Your task to perform on an android device: Show me productivity apps on the Play Store Image 0: 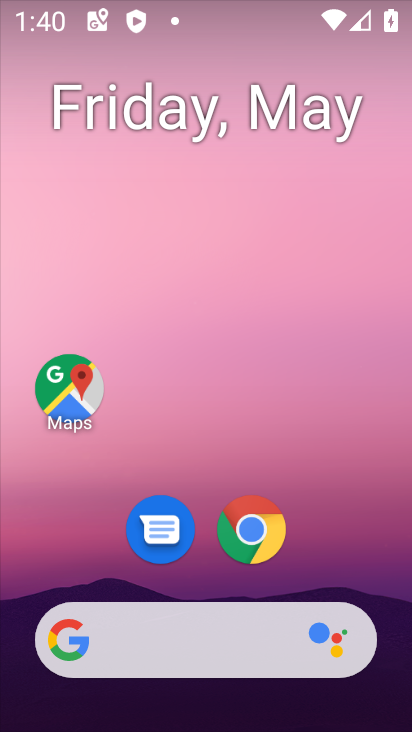
Step 0: drag from (308, 573) to (292, 107)
Your task to perform on an android device: Show me productivity apps on the Play Store Image 1: 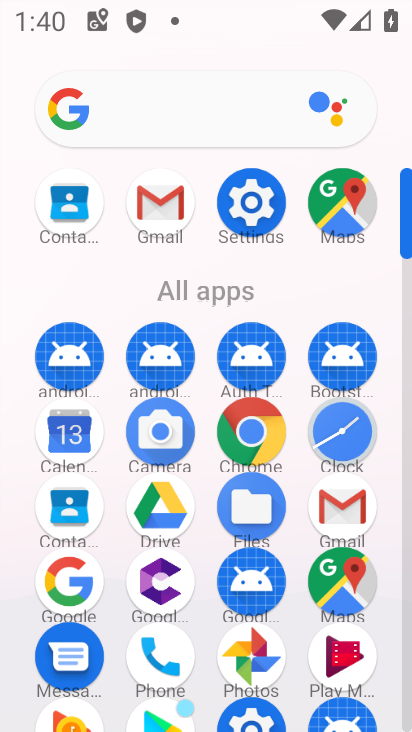
Step 1: drag from (204, 631) to (225, 339)
Your task to perform on an android device: Show me productivity apps on the Play Store Image 2: 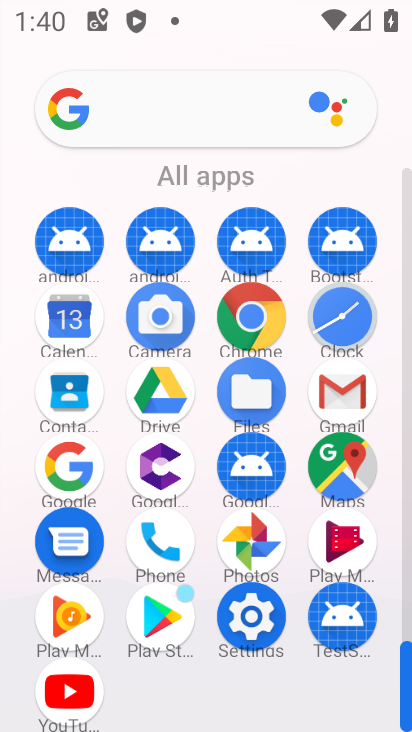
Step 2: click (153, 633)
Your task to perform on an android device: Show me productivity apps on the Play Store Image 3: 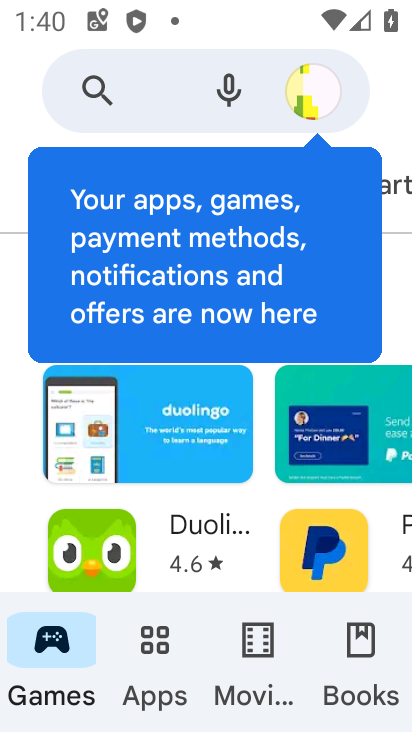
Step 3: click (137, 678)
Your task to perform on an android device: Show me productivity apps on the Play Store Image 4: 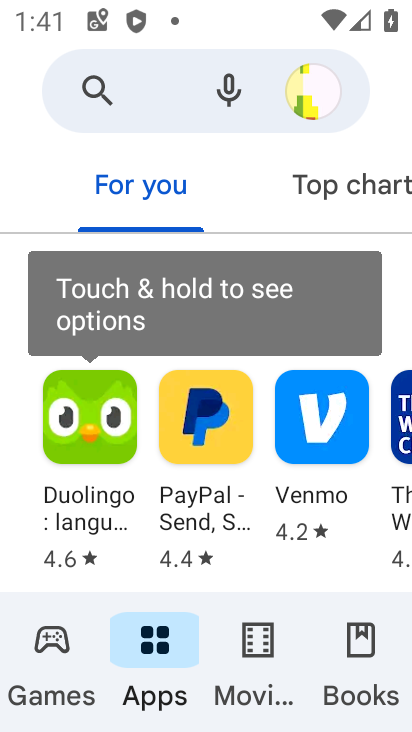
Step 4: click (336, 185)
Your task to perform on an android device: Show me productivity apps on the Play Store Image 5: 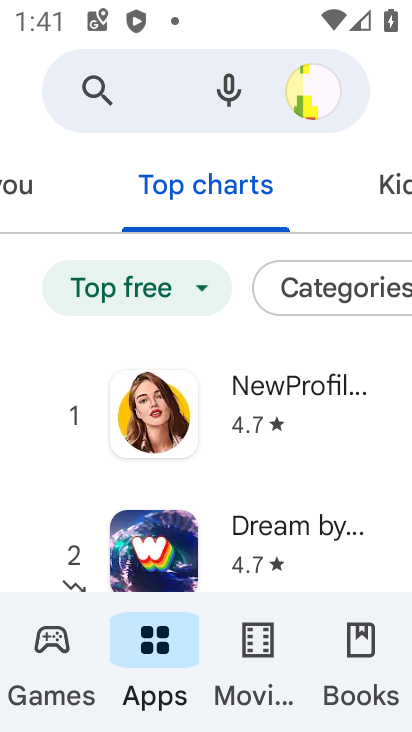
Step 5: drag from (358, 192) to (124, 196)
Your task to perform on an android device: Show me productivity apps on the Play Store Image 6: 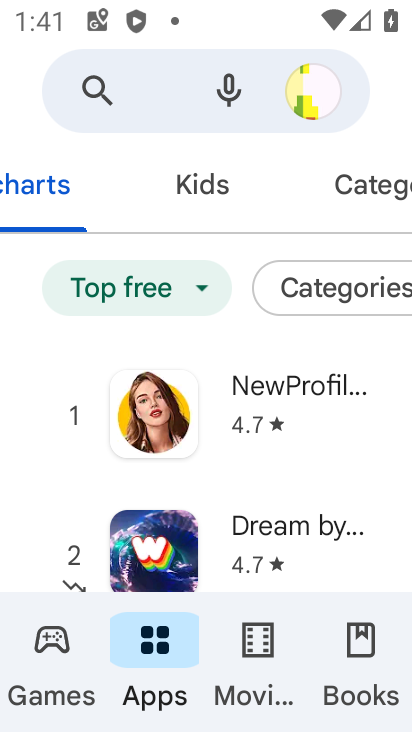
Step 6: click (368, 184)
Your task to perform on an android device: Show me productivity apps on the Play Store Image 7: 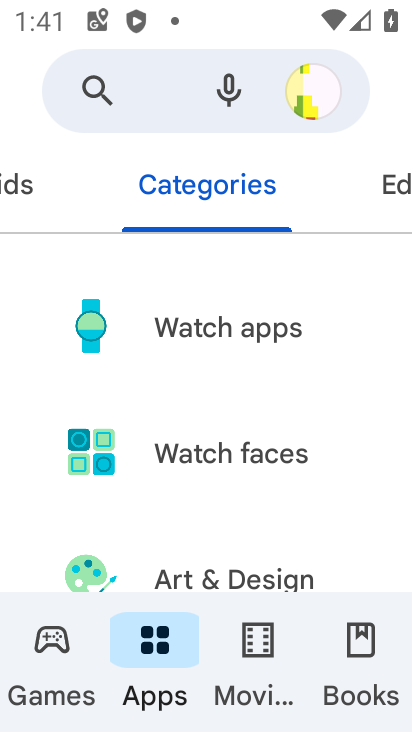
Step 7: drag from (232, 509) to (263, 81)
Your task to perform on an android device: Show me productivity apps on the Play Store Image 8: 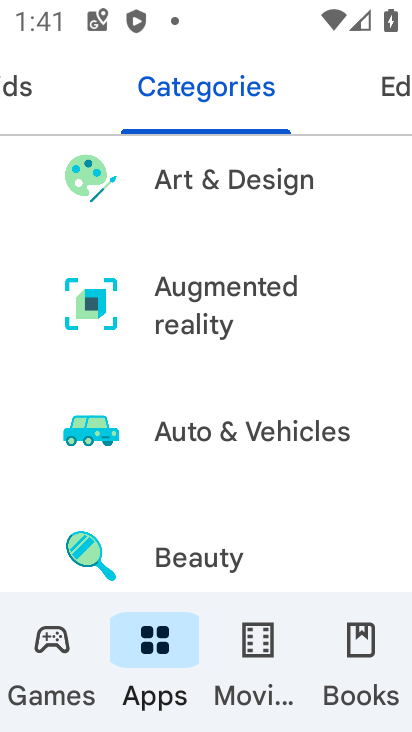
Step 8: drag from (248, 462) to (297, 75)
Your task to perform on an android device: Show me productivity apps on the Play Store Image 9: 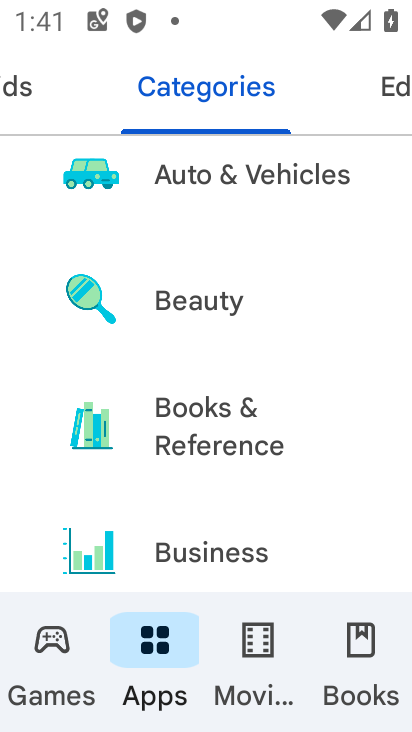
Step 9: drag from (231, 445) to (254, 41)
Your task to perform on an android device: Show me productivity apps on the Play Store Image 10: 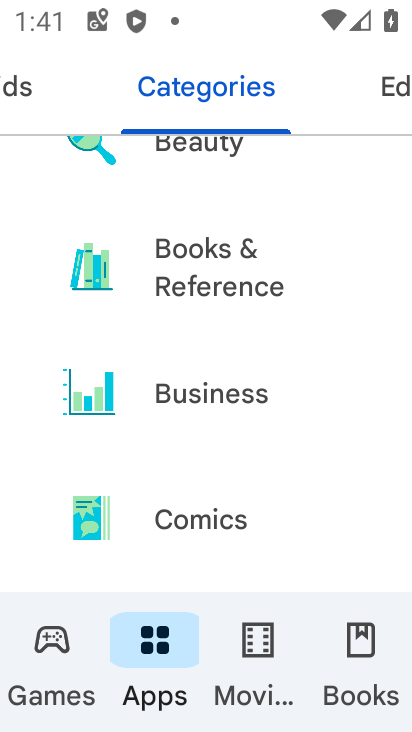
Step 10: drag from (247, 483) to (308, 24)
Your task to perform on an android device: Show me productivity apps on the Play Store Image 11: 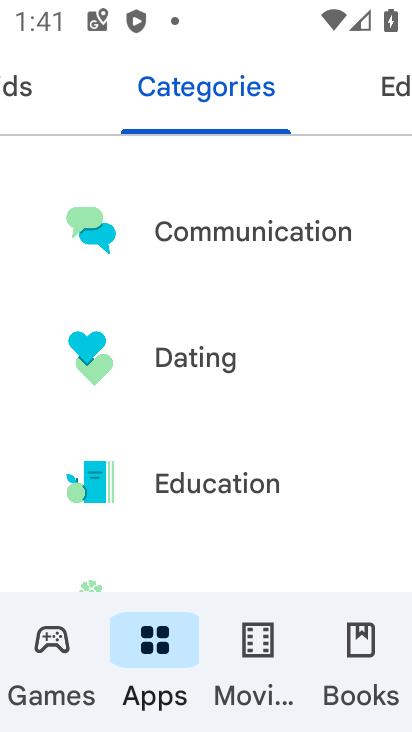
Step 11: drag from (236, 471) to (237, 127)
Your task to perform on an android device: Show me productivity apps on the Play Store Image 12: 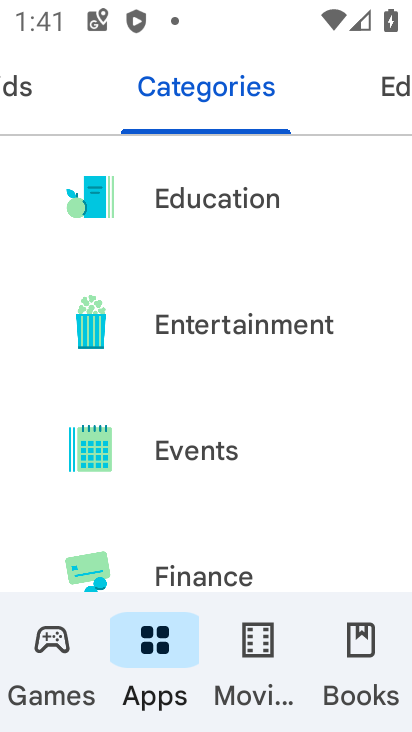
Step 12: drag from (201, 464) to (248, 66)
Your task to perform on an android device: Show me productivity apps on the Play Store Image 13: 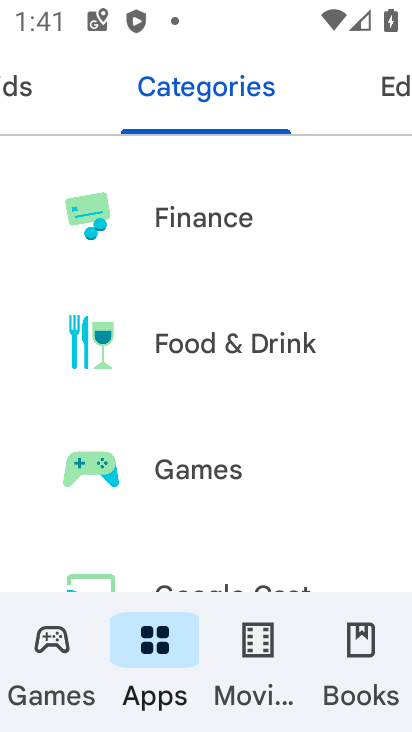
Step 13: drag from (198, 501) to (219, 103)
Your task to perform on an android device: Show me productivity apps on the Play Store Image 14: 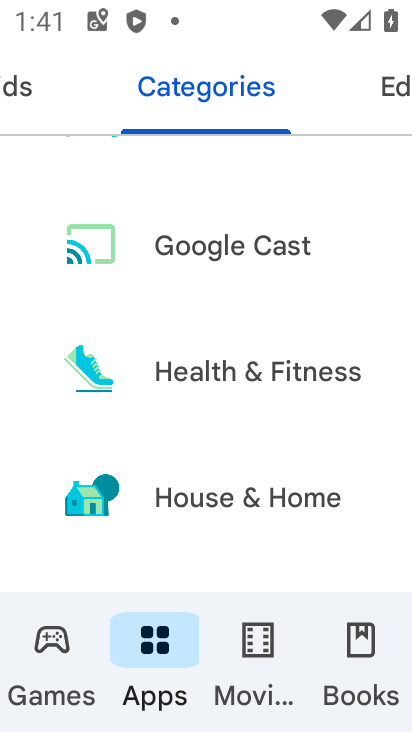
Step 14: drag from (223, 519) to (256, 196)
Your task to perform on an android device: Show me productivity apps on the Play Store Image 15: 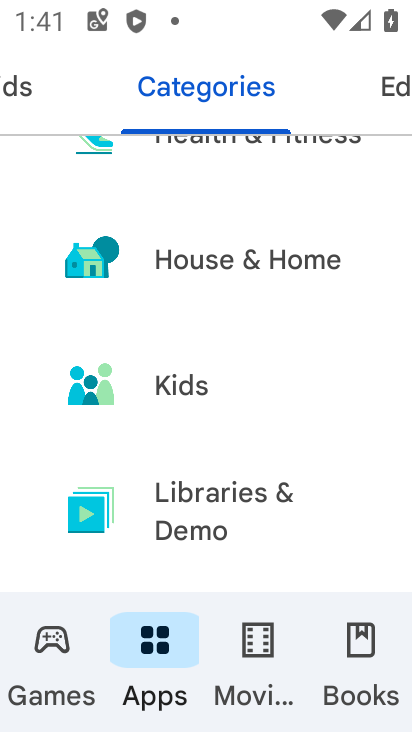
Step 15: drag from (209, 478) to (245, 248)
Your task to perform on an android device: Show me productivity apps on the Play Store Image 16: 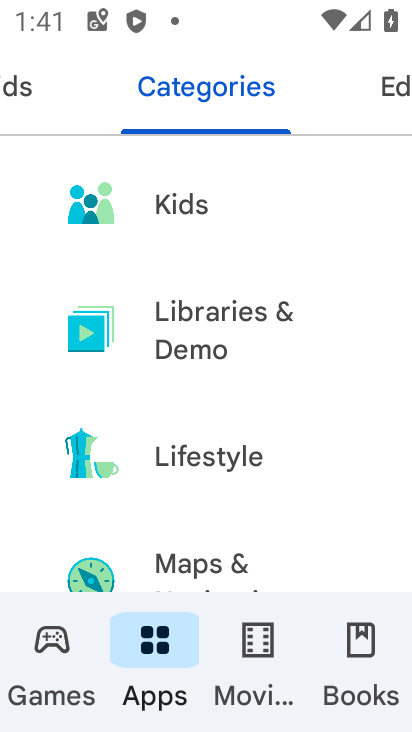
Step 16: drag from (192, 549) to (228, 199)
Your task to perform on an android device: Show me productivity apps on the Play Store Image 17: 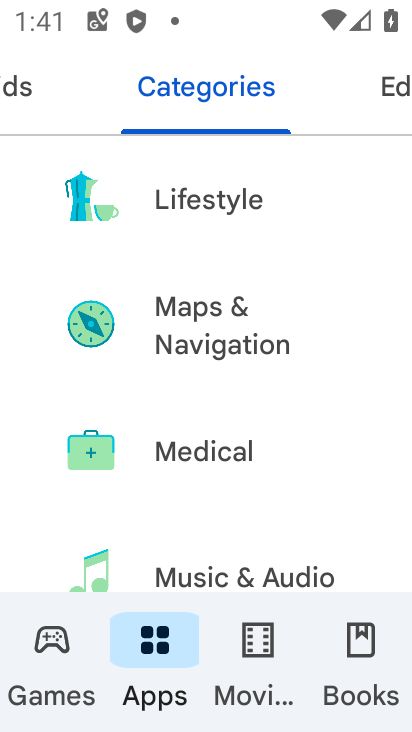
Step 17: drag from (232, 512) to (230, 251)
Your task to perform on an android device: Show me productivity apps on the Play Store Image 18: 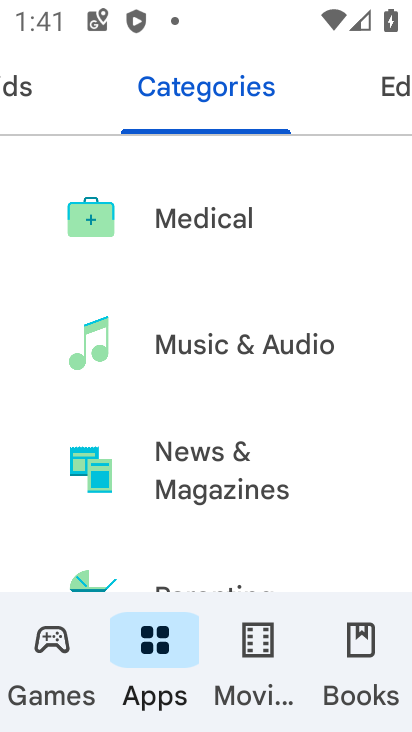
Step 18: drag from (214, 526) to (245, 150)
Your task to perform on an android device: Show me productivity apps on the Play Store Image 19: 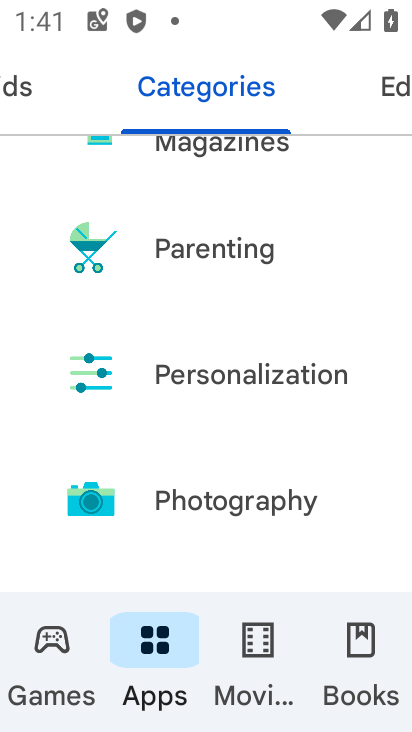
Step 19: drag from (257, 534) to (305, 215)
Your task to perform on an android device: Show me productivity apps on the Play Store Image 20: 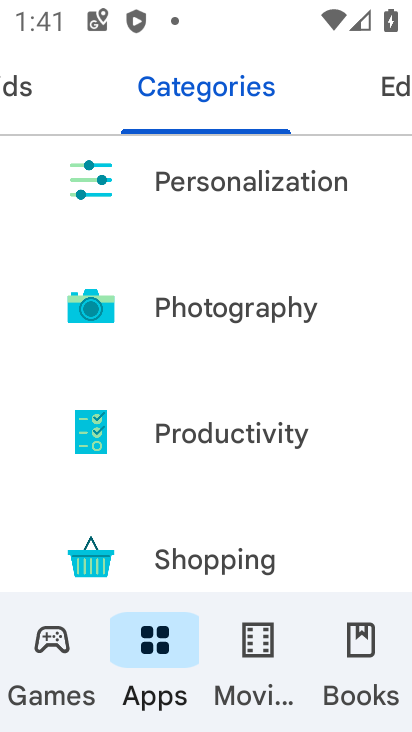
Step 20: click (232, 435)
Your task to perform on an android device: Show me productivity apps on the Play Store Image 21: 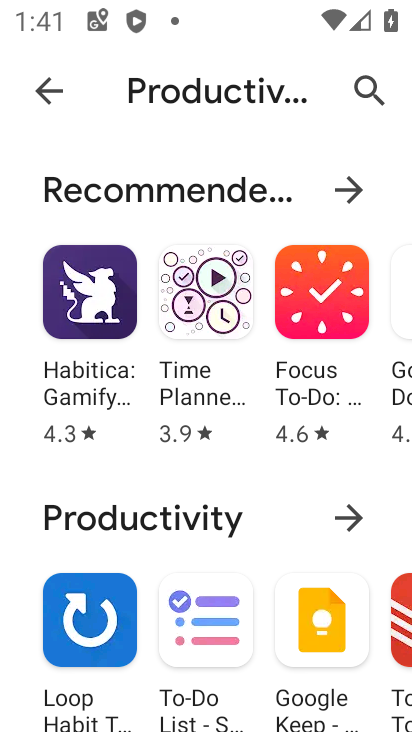
Step 21: task complete